Your task to perform on an android device: What's on my calendar today? Image 0: 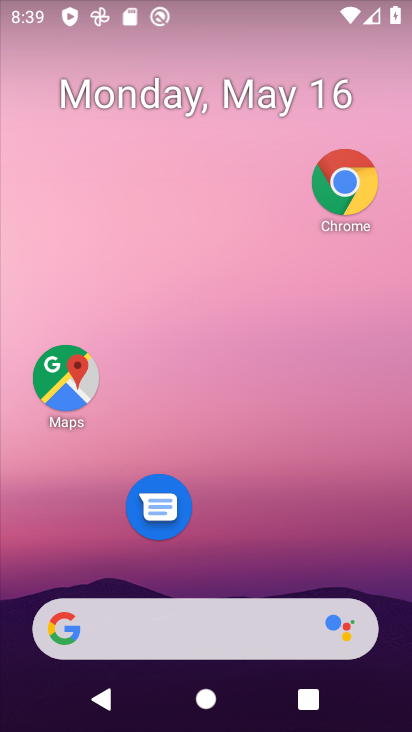
Step 0: drag from (315, 505) to (307, 89)
Your task to perform on an android device: What's on my calendar today? Image 1: 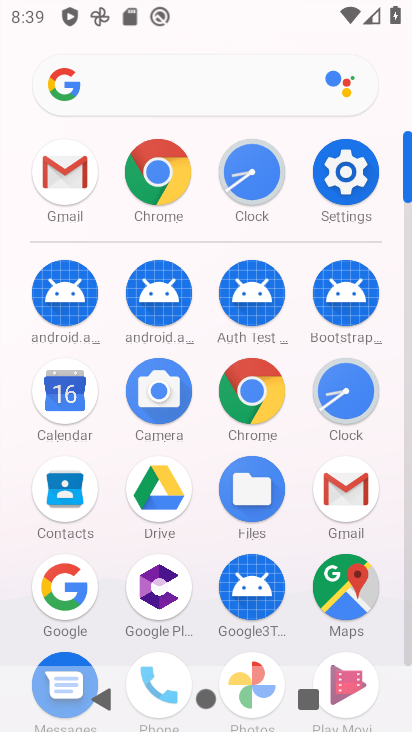
Step 1: click (62, 403)
Your task to perform on an android device: What's on my calendar today? Image 2: 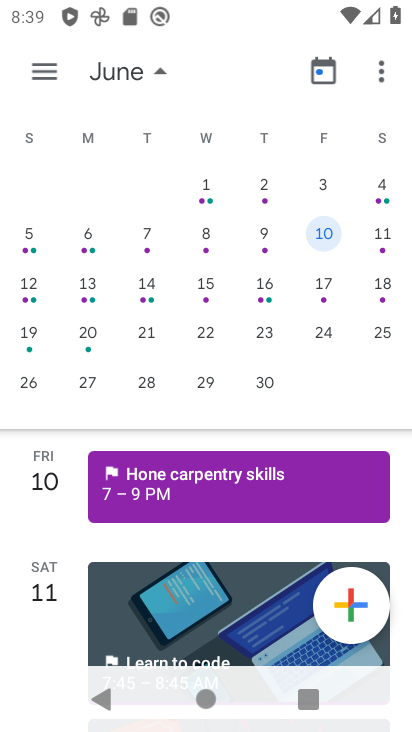
Step 2: drag from (12, 196) to (391, 201)
Your task to perform on an android device: What's on my calendar today? Image 3: 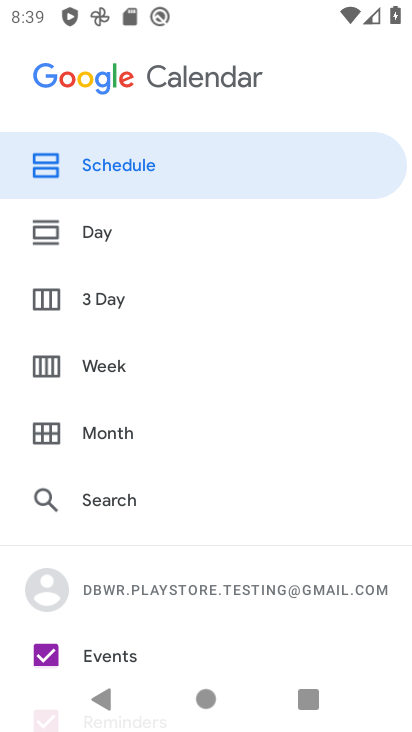
Step 3: drag from (388, 238) to (5, 160)
Your task to perform on an android device: What's on my calendar today? Image 4: 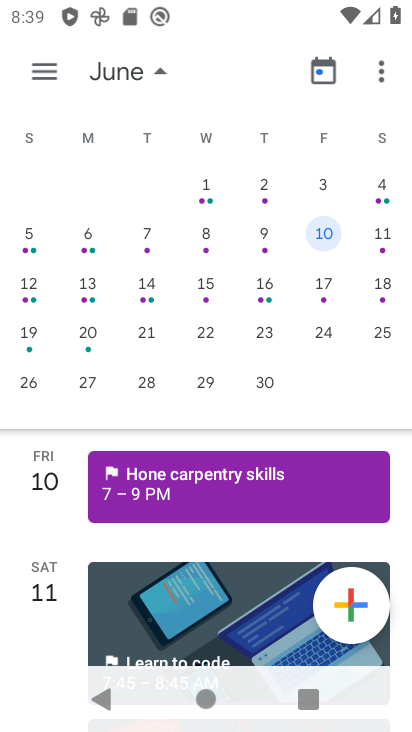
Step 4: drag from (54, 192) to (401, 194)
Your task to perform on an android device: What's on my calendar today? Image 5: 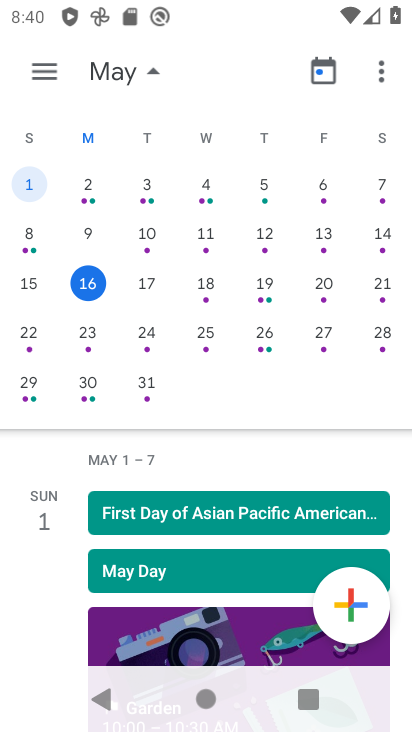
Step 5: click (137, 284)
Your task to perform on an android device: What's on my calendar today? Image 6: 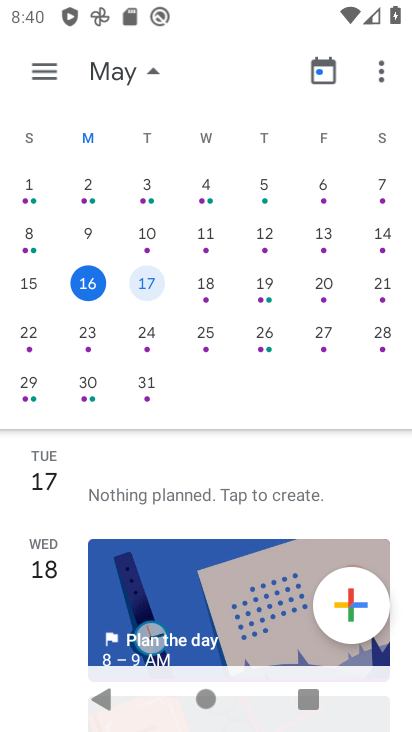
Step 6: task complete